Your task to perform on an android device: Go to settings Image 0: 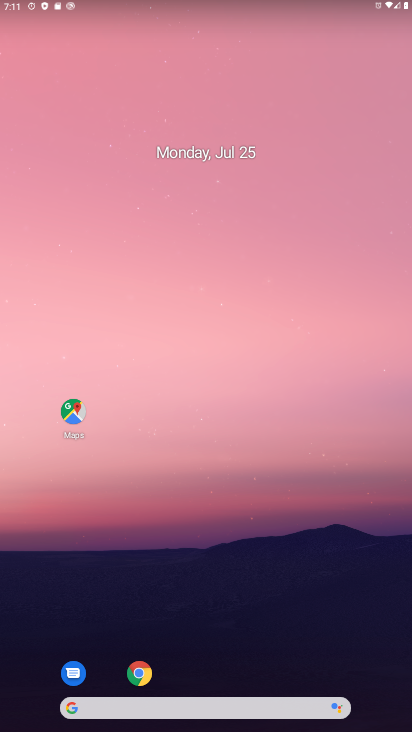
Step 0: drag from (292, 639) to (103, 38)
Your task to perform on an android device: Go to settings Image 1: 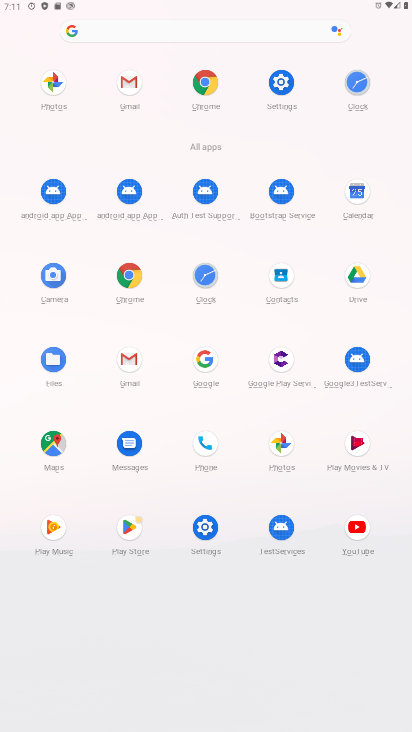
Step 1: click (190, 532)
Your task to perform on an android device: Go to settings Image 2: 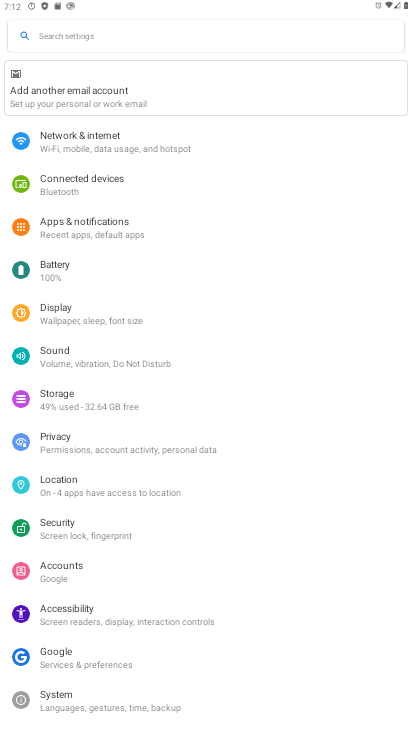
Step 2: task complete